Your task to perform on an android device: Open CNN.com Image 0: 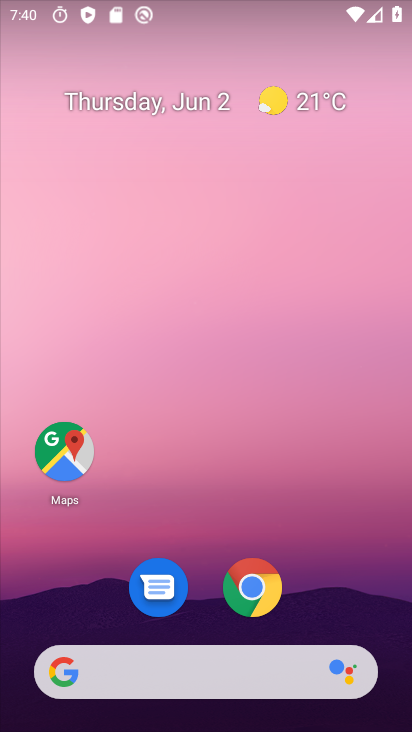
Step 0: click (253, 590)
Your task to perform on an android device: Open CNN.com Image 1: 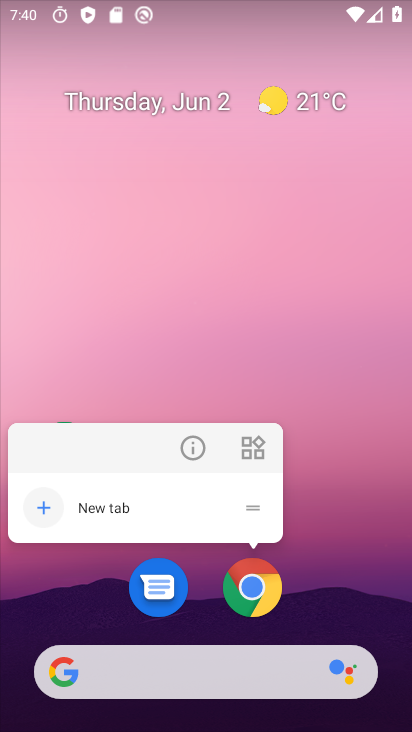
Step 1: click (253, 590)
Your task to perform on an android device: Open CNN.com Image 2: 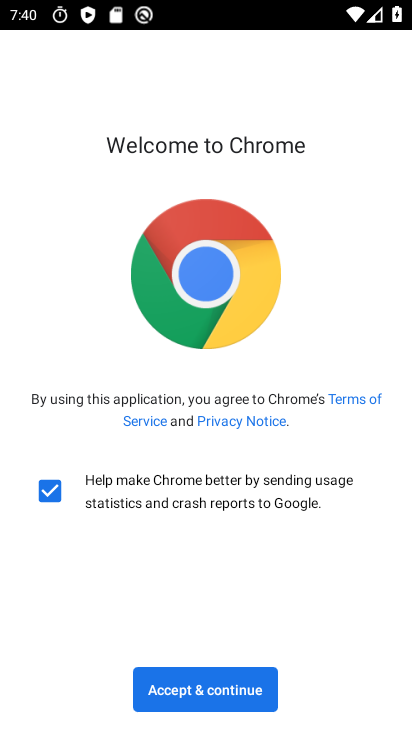
Step 2: click (189, 698)
Your task to perform on an android device: Open CNN.com Image 3: 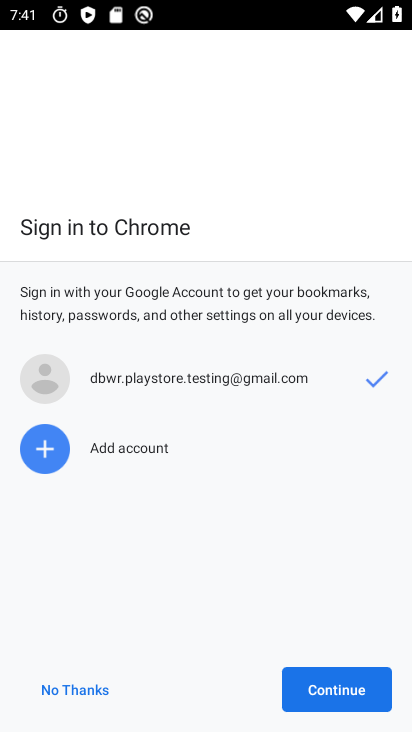
Step 3: click (68, 692)
Your task to perform on an android device: Open CNN.com Image 4: 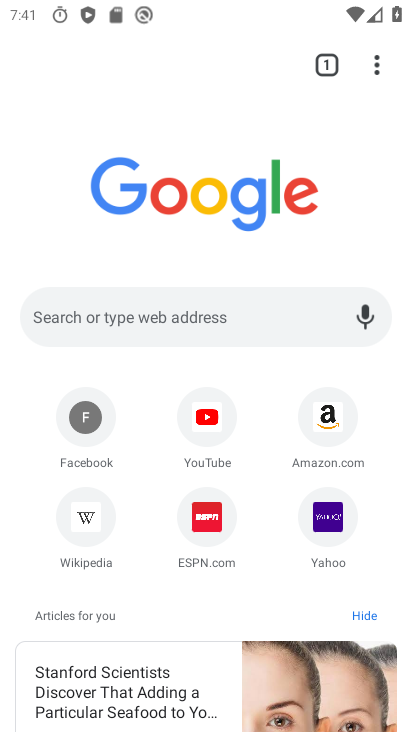
Step 4: click (102, 318)
Your task to perform on an android device: Open CNN.com Image 5: 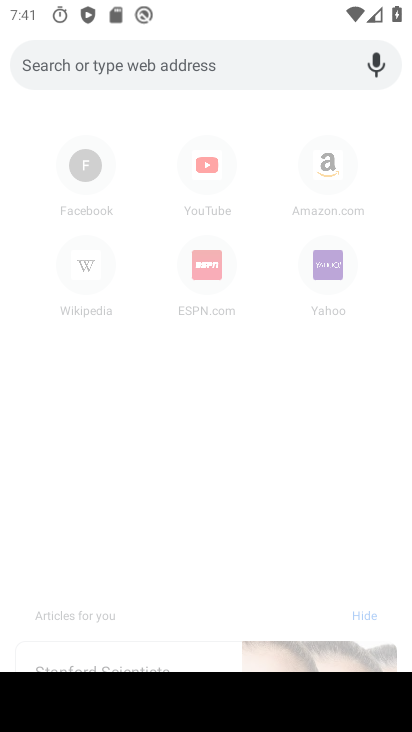
Step 5: type "cnn.com"
Your task to perform on an android device: Open CNN.com Image 6: 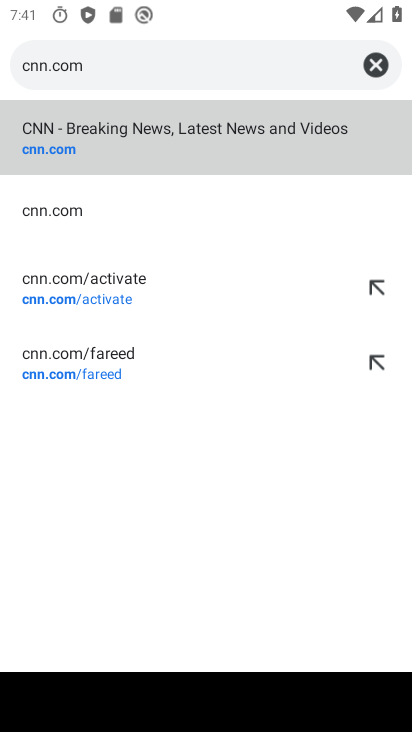
Step 6: click (40, 215)
Your task to perform on an android device: Open CNN.com Image 7: 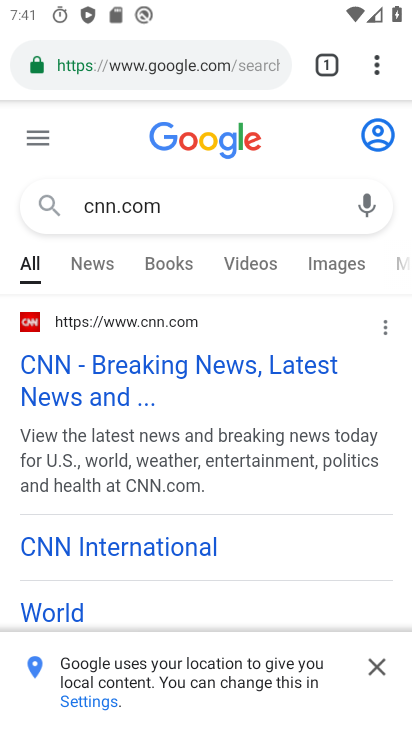
Step 7: click (27, 318)
Your task to perform on an android device: Open CNN.com Image 8: 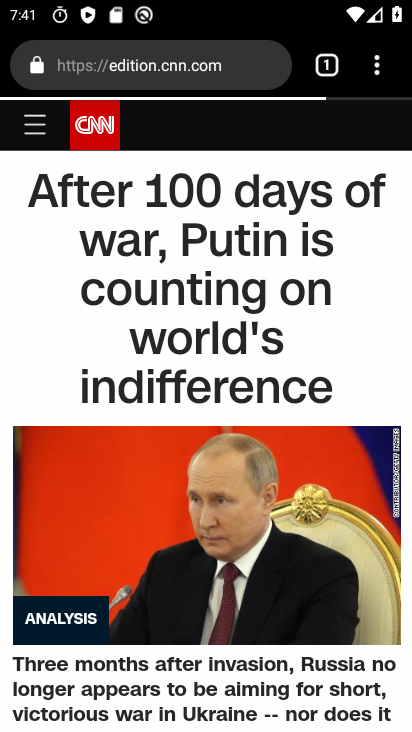
Step 8: task complete